Your task to perform on an android device: check storage Image 0: 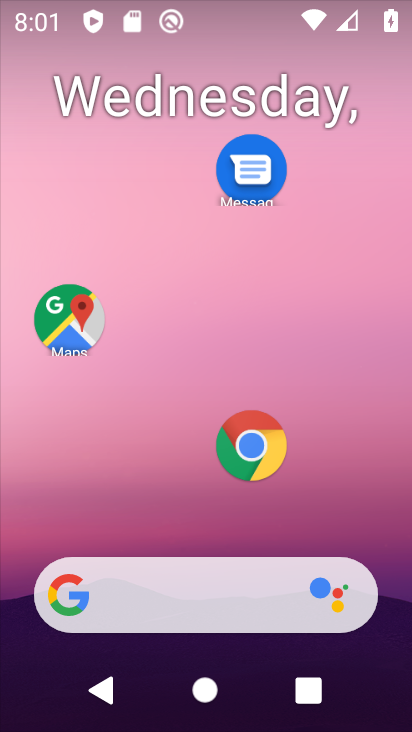
Step 0: drag from (260, 678) to (260, 136)
Your task to perform on an android device: check storage Image 1: 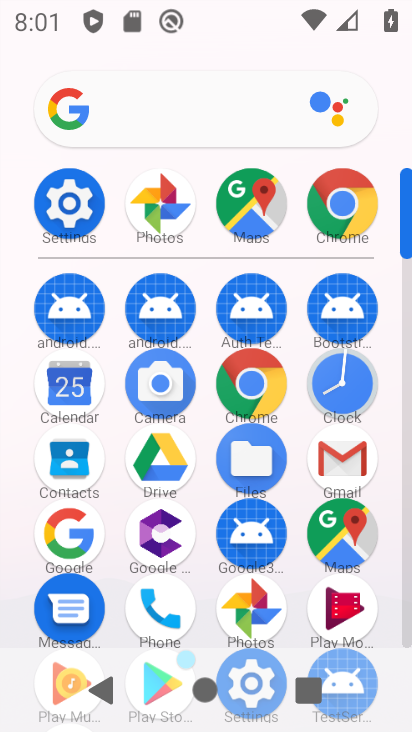
Step 1: click (75, 209)
Your task to perform on an android device: check storage Image 2: 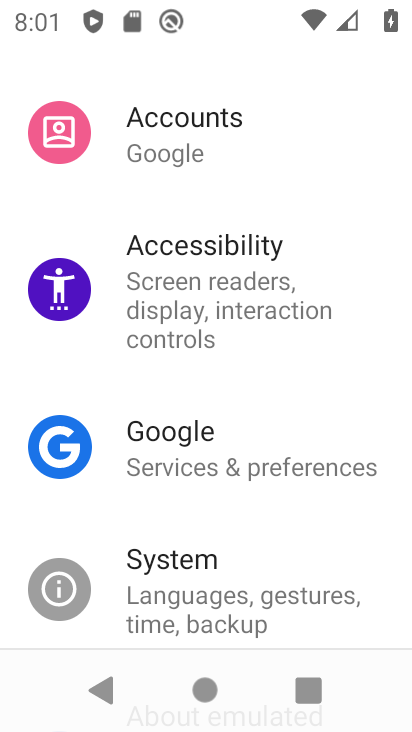
Step 2: drag from (217, 186) to (217, 522)
Your task to perform on an android device: check storage Image 3: 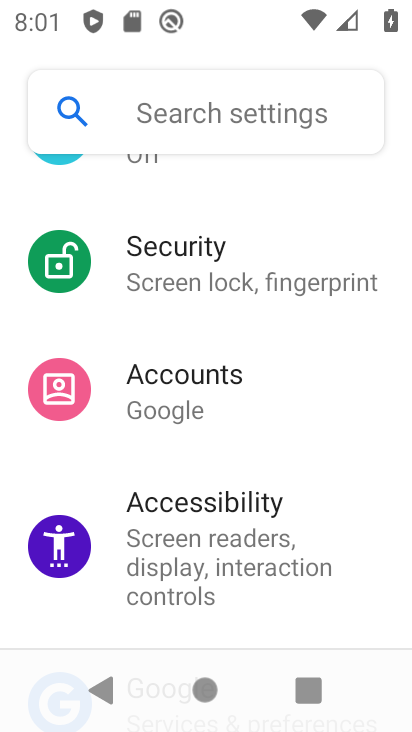
Step 3: drag from (181, 133) to (226, 459)
Your task to perform on an android device: check storage Image 4: 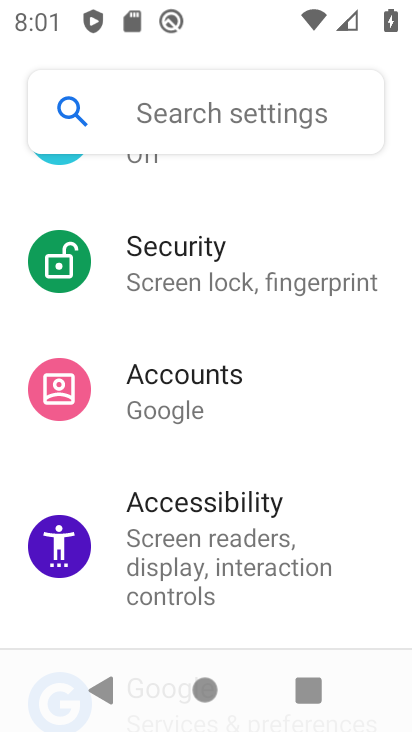
Step 4: drag from (213, 261) to (240, 507)
Your task to perform on an android device: check storage Image 5: 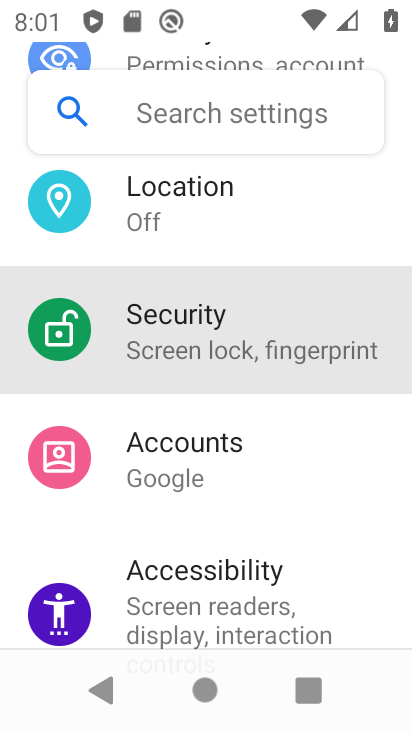
Step 5: drag from (213, 274) to (239, 489)
Your task to perform on an android device: check storage Image 6: 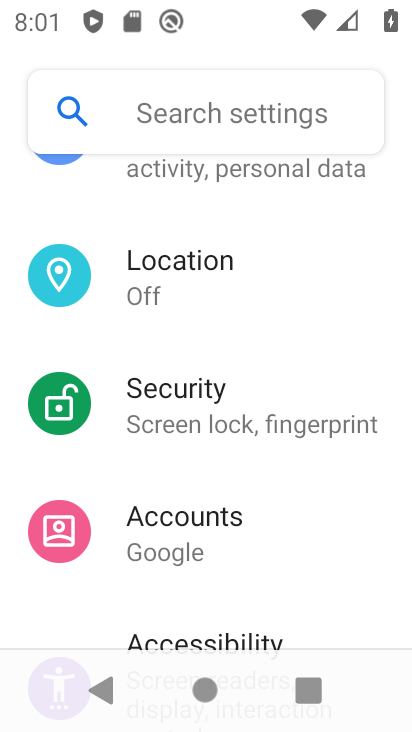
Step 6: drag from (202, 226) to (202, 530)
Your task to perform on an android device: check storage Image 7: 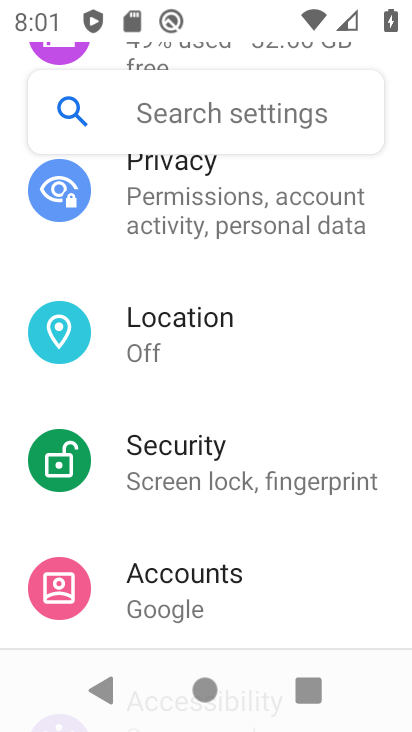
Step 7: drag from (221, 241) to (209, 725)
Your task to perform on an android device: check storage Image 8: 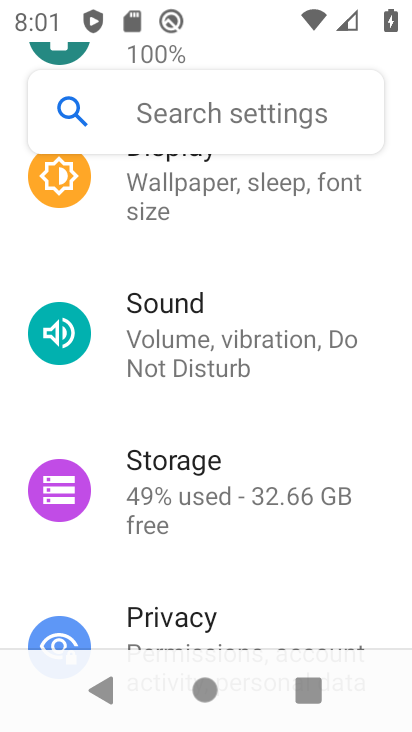
Step 8: click (198, 498)
Your task to perform on an android device: check storage Image 9: 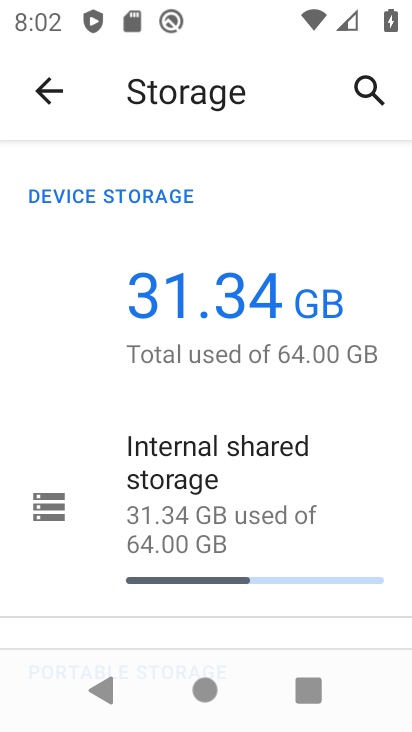
Step 9: task complete